Your task to perform on an android device: change the clock display to digital Image 0: 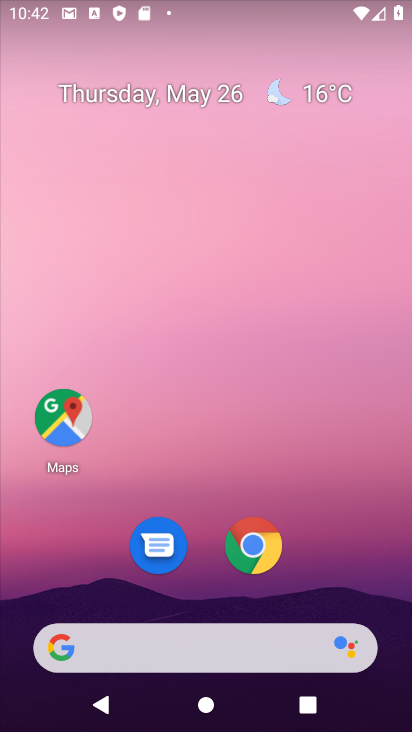
Step 0: press home button
Your task to perform on an android device: change the clock display to digital Image 1: 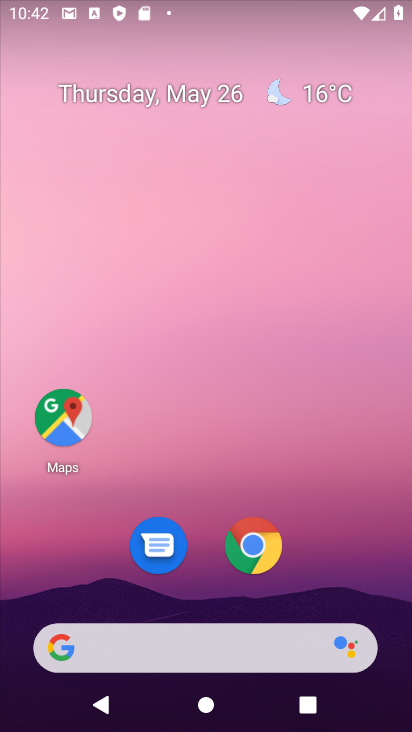
Step 1: drag from (314, 598) to (314, 200)
Your task to perform on an android device: change the clock display to digital Image 2: 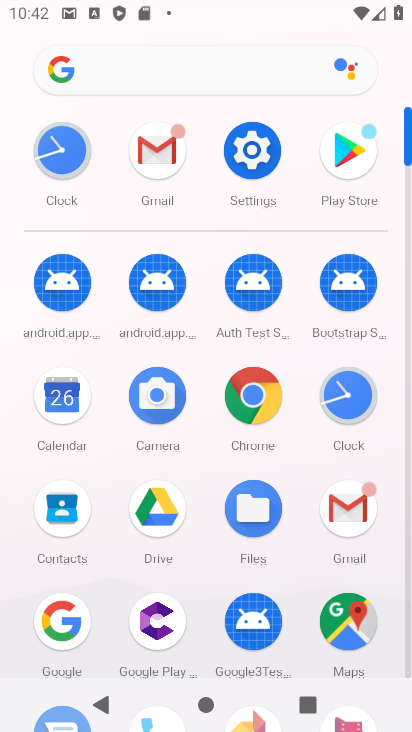
Step 2: click (70, 153)
Your task to perform on an android device: change the clock display to digital Image 3: 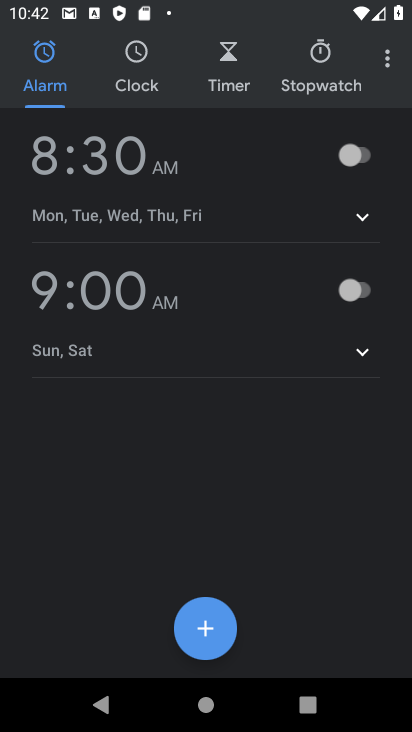
Step 3: click (387, 65)
Your task to perform on an android device: change the clock display to digital Image 4: 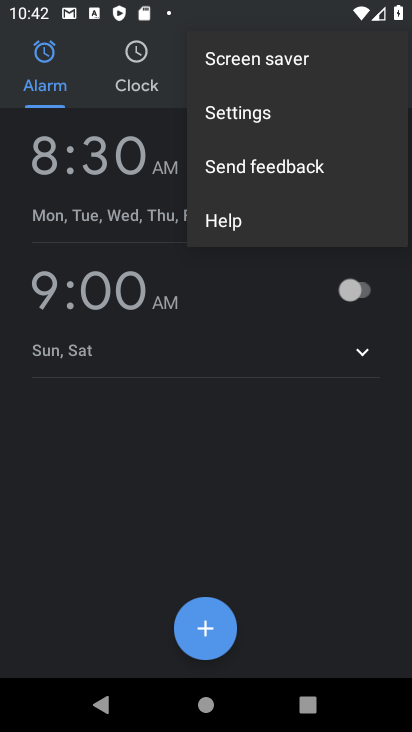
Step 4: click (246, 116)
Your task to perform on an android device: change the clock display to digital Image 5: 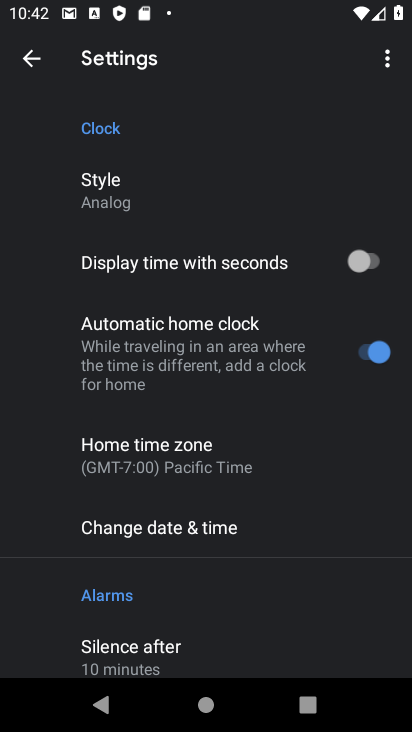
Step 5: click (83, 186)
Your task to perform on an android device: change the clock display to digital Image 6: 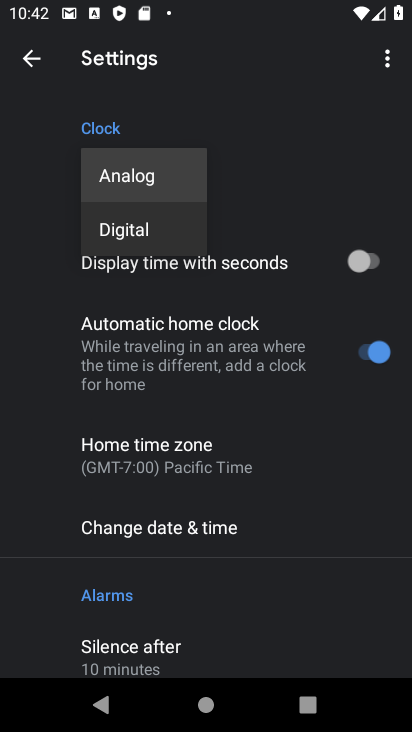
Step 6: click (124, 227)
Your task to perform on an android device: change the clock display to digital Image 7: 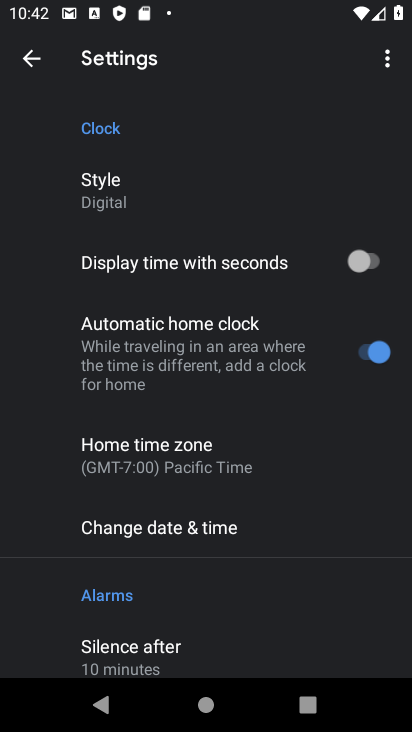
Step 7: task complete